Your task to perform on an android device: Add "dell xps" to the cart on bestbuy.com, then select checkout. Image 0: 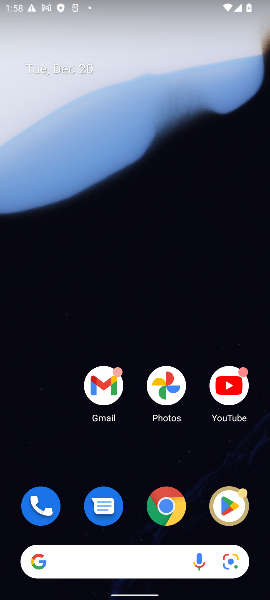
Step 0: click (162, 502)
Your task to perform on an android device: Add "dell xps" to the cart on bestbuy.com, then select checkout. Image 1: 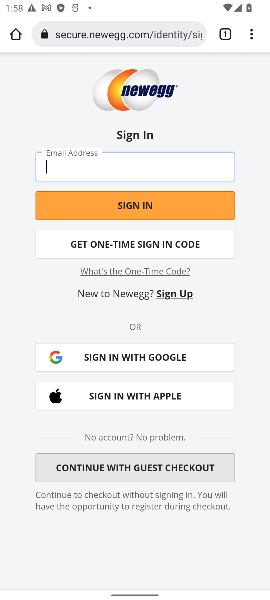
Step 1: click (106, 35)
Your task to perform on an android device: Add "dell xps" to the cart on bestbuy.com, then select checkout. Image 2: 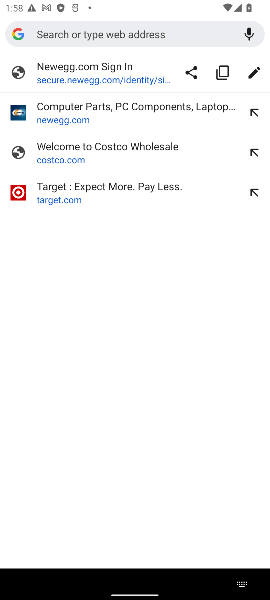
Step 2: type "BESTBUY"
Your task to perform on an android device: Add "dell xps" to the cart on bestbuy.com, then select checkout. Image 3: 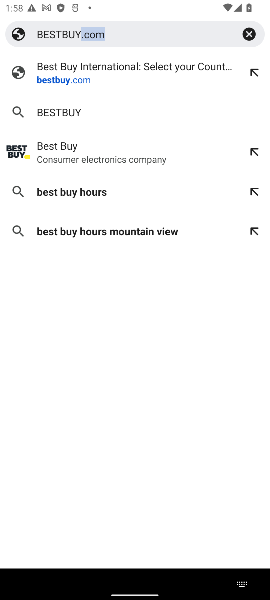
Step 3: click (75, 72)
Your task to perform on an android device: Add "dell xps" to the cart on bestbuy.com, then select checkout. Image 4: 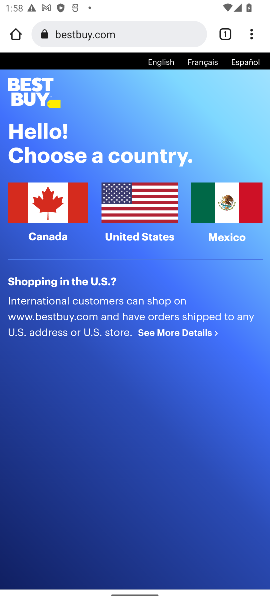
Step 4: click (145, 198)
Your task to perform on an android device: Add "dell xps" to the cart on bestbuy.com, then select checkout. Image 5: 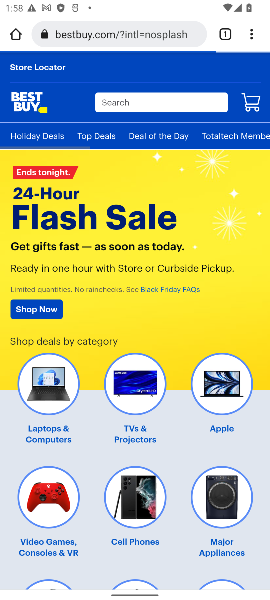
Step 5: click (146, 105)
Your task to perform on an android device: Add "dell xps" to the cart on bestbuy.com, then select checkout. Image 6: 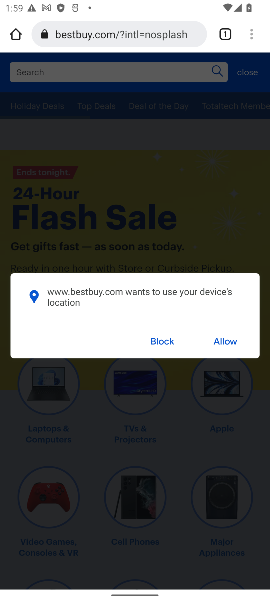
Step 6: click (169, 342)
Your task to perform on an android device: Add "dell xps" to the cart on bestbuy.com, then select checkout. Image 7: 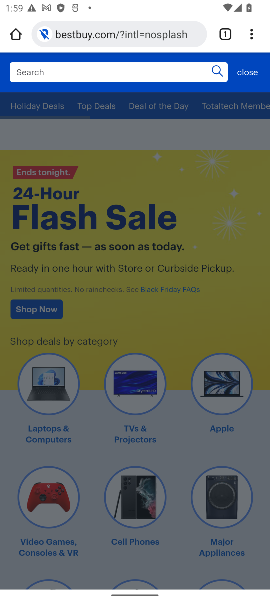
Step 7: click (56, 74)
Your task to perform on an android device: Add "dell xps" to the cart on bestbuy.com, then select checkout. Image 8: 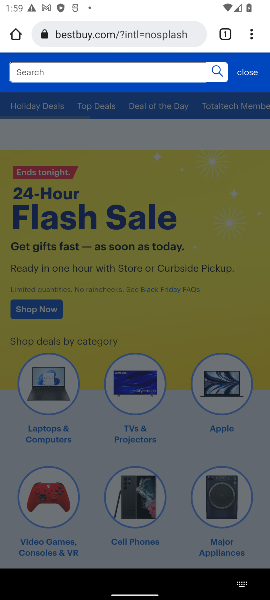
Step 8: type "DELL XPS"
Your task to perform on an android device: Add "dell xps" to the cart on bestbuy.com, then select checkout. Image 9: 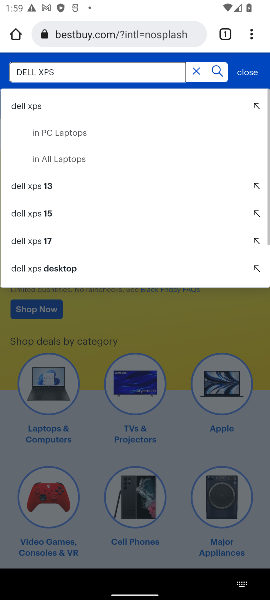
Step 9: click (21, 108)
Your task to perform on an android device: Add "dell xps" to the cart on bestbuy.com, then select checkout. Image 10: 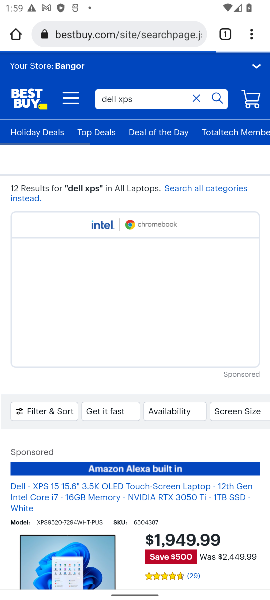
Step 10: click (192, 541)
Your task to perform on an android device: Add "dell xps" to the cart on bestbuy.com, then select checkout. Image 11: 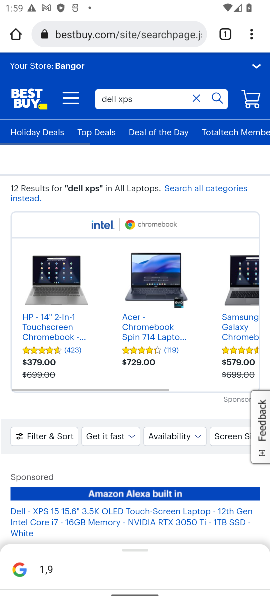
Step 11: drag from (131, 432) to (120, 213)
Your task to perform on an android device: Add "dell xps" to the cart on bestbuy.com, then select checkout. Image 12: 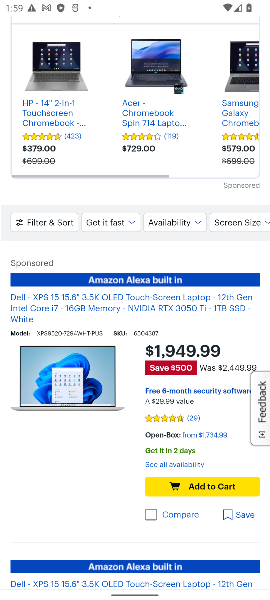
Step 12: click (205, 483)
Your task to perform on an android device: Add "dell xps" to the cart on bestbuy.com, then select checkout. Image 13: 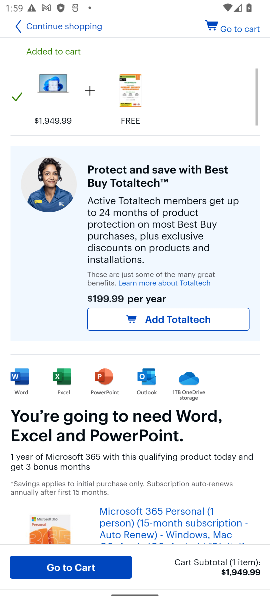
Step 13: click (68, 569)
Your task to perform on an android device: Add "dell xps" to the cart on bestbuy.com, then select checkout. Image 14: 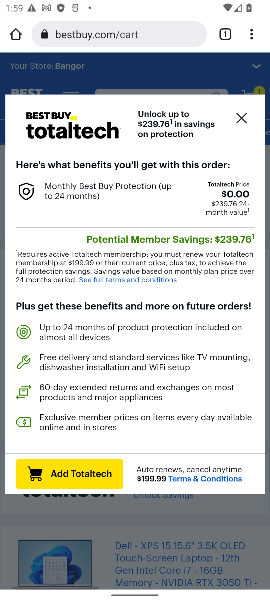
Step 14: click (241, 122)
Your task to perform on an android device: Add "dell xps" to the cart on bestbuy.com, then select checkout. Image 15: 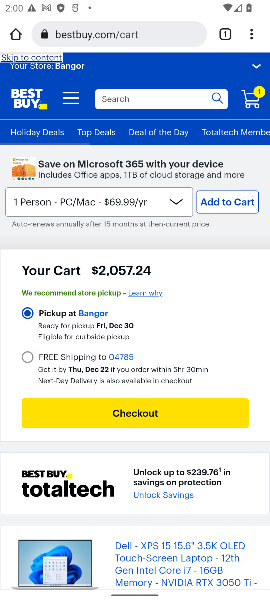
Step 15: click (139, 411)
Your task to perform on an android device: Add "dell xps" to the cart on bestbuy.com, then select checkout. Image 16: 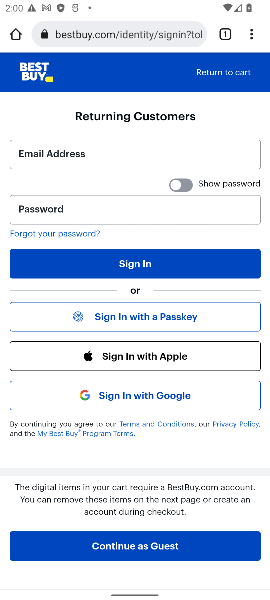
Step 16: task complete